Your task to perform on an android device: move an email to a new category in the gmail app Image 0: 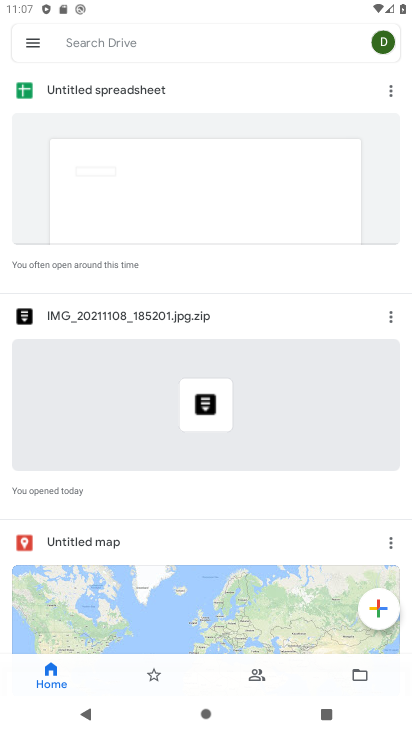
Step 0: press home button
Your task to perform on an android device: move an email to a new category in the gmail app Image 1: 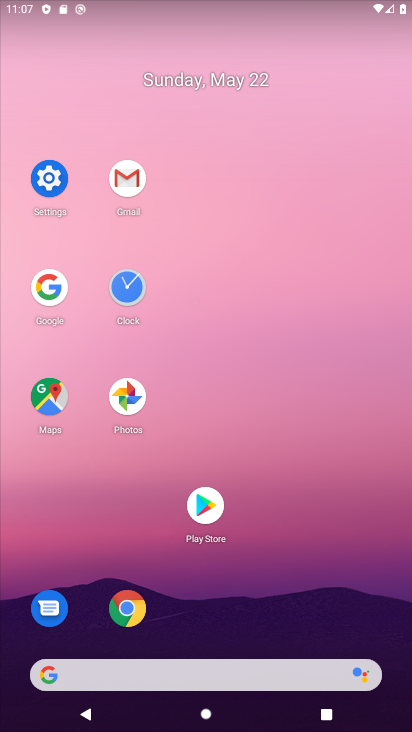
Step 1: click (121, 182)
Your task to perform on an android device: move an email to a new category in the gmail app Image 2: 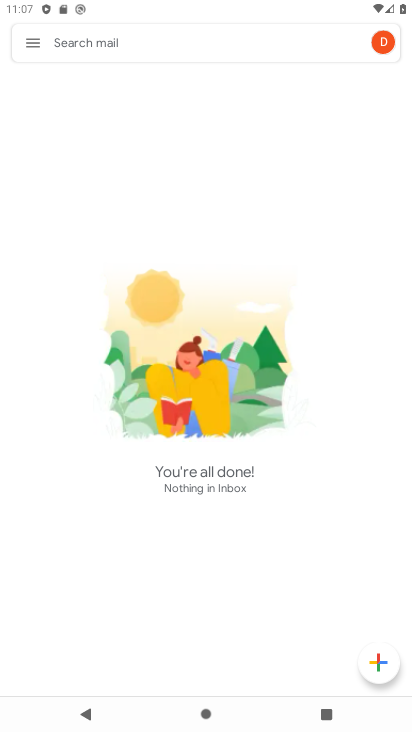
Step 2: click (37, 39)
Your task to perform on an android device: move an email to a new category in the gmail app Image 3: 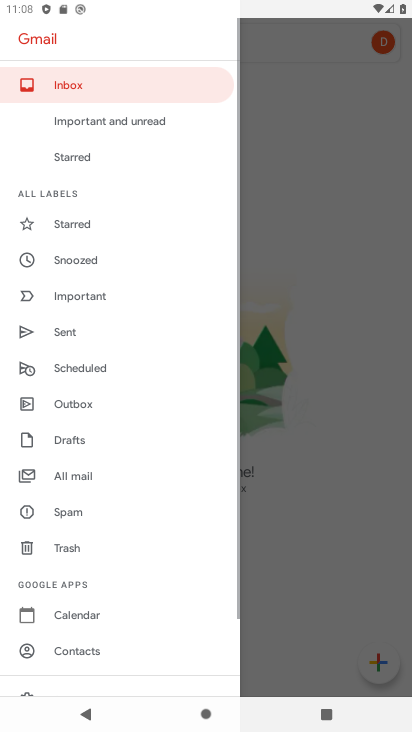
Step 3: drag from (175, 541) to (149, 153)
Your task to perform on an android device: move an email to a new category in the gmail app Image 4: 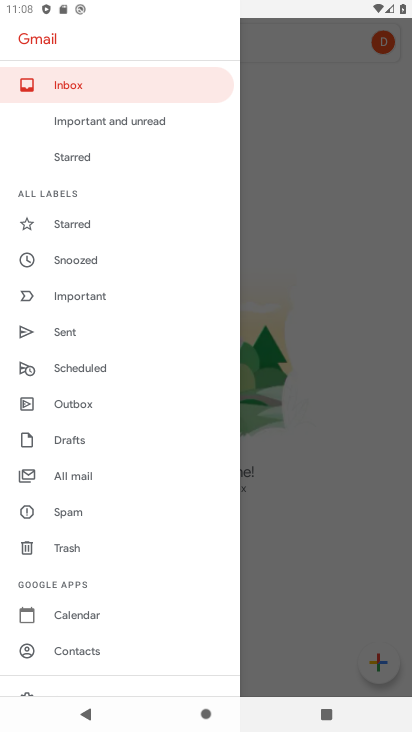
Step 4: click (101, 477)
Your task to perform on an android device: move an email to a new category in the gmail app Image 5: 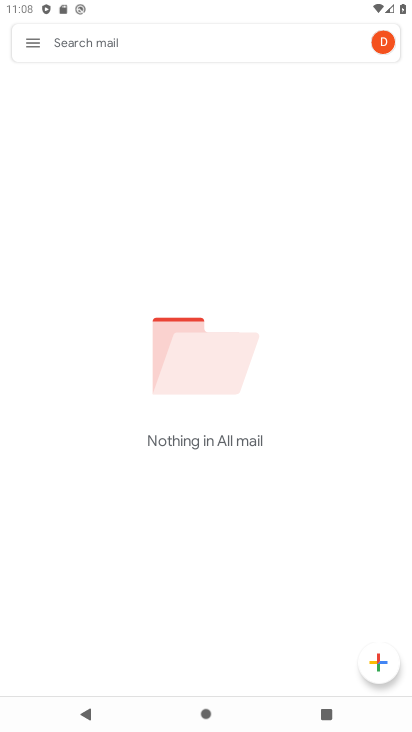
Step 5: task complete